Your task to perform on an android device: all mails in gmail Image 0: 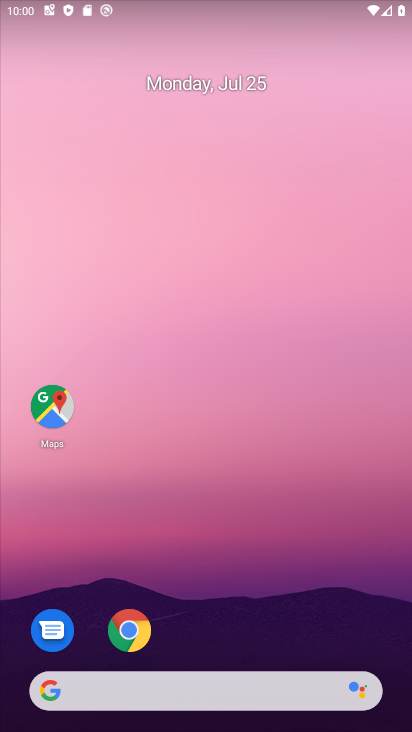
Step 0: press home button
Your task to perform on an android device: all mails in gmail Image 1: 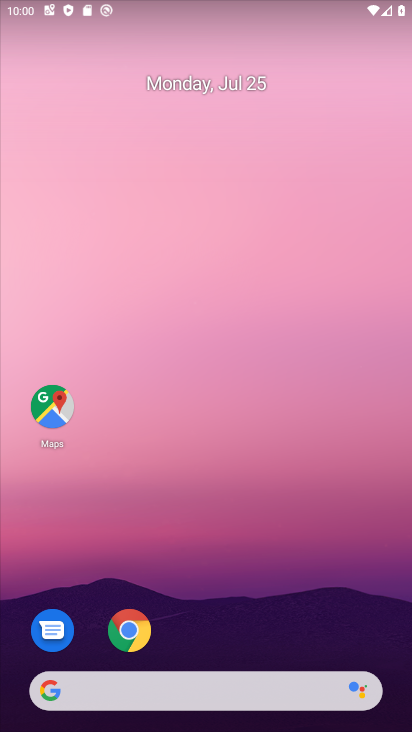
Step 1: drag from (333, 611) to (351, 188)
Your task to perform on an android device: all mails in gmail Image 2: 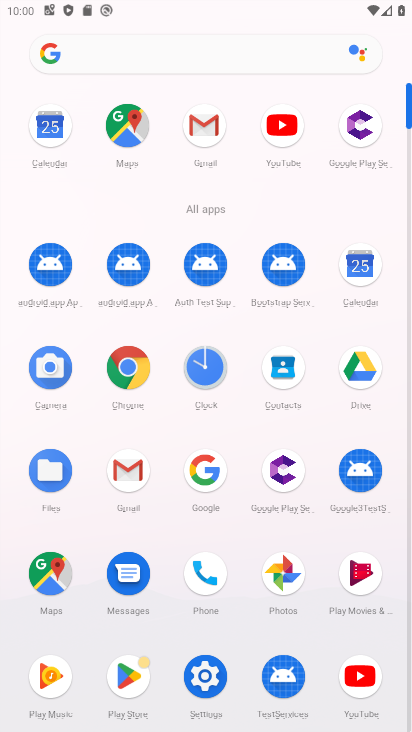
Step 2: click (122, 478)
Your task to perform on an android device: all mails in gmail Image 3: 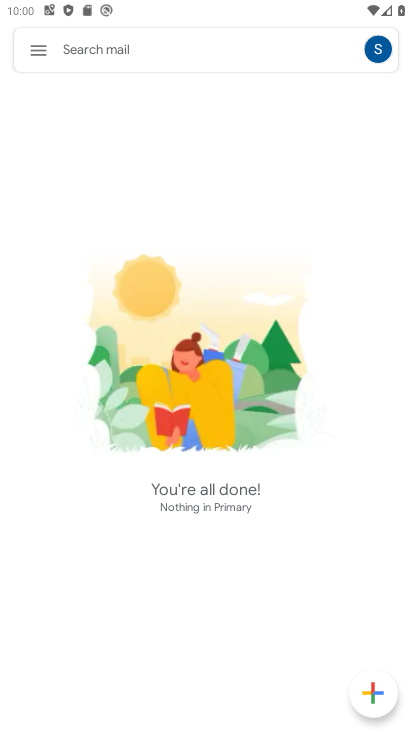
Step 3: click (37, 49)
Your task to perform on an android device: all mails in gmail Image 4: 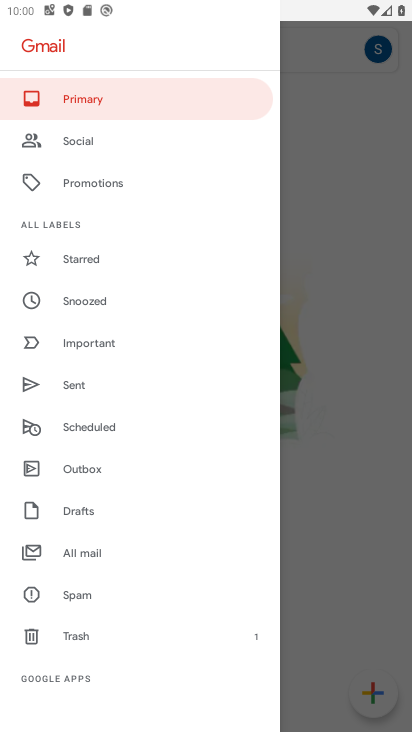
Step 4: drag from (198, 435) to (195, 317)
Your task to perform on an android device: all mails in gmail Image 5: 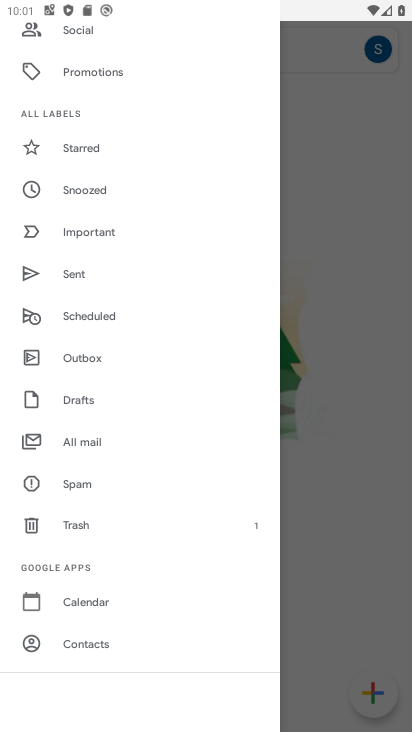
Step 5: click (102, 444)
Your task to perform on an android device: all mails in gmail Image 6: 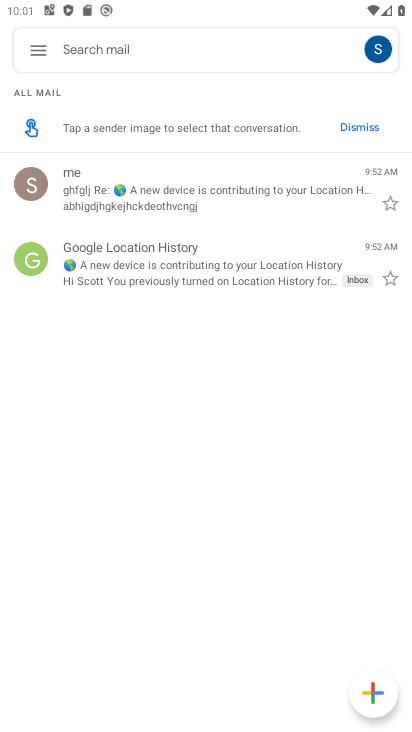
Step 6: click (36, 53)
Your task to perform on an android device: all mails in gmail Image 7: 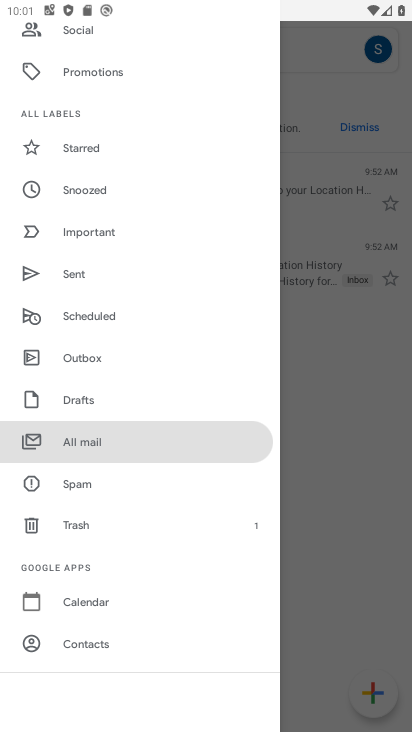
Step 7: task complete